Your task to perform on an android device: toggle sleep mode Image 0: 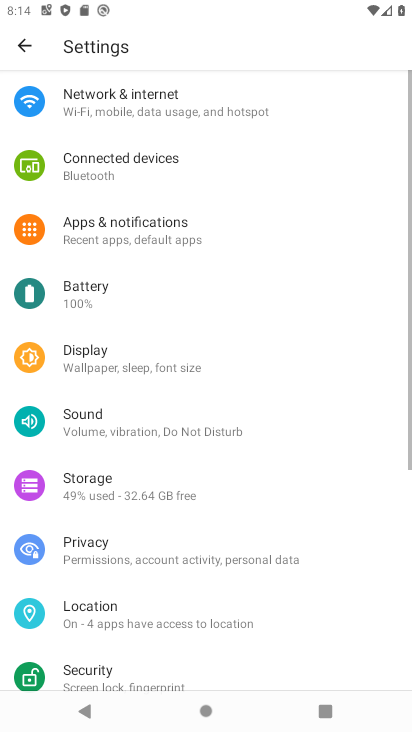
Step 0: press home button
Your task to perform on an android device: toggle sleep mode Image 1: 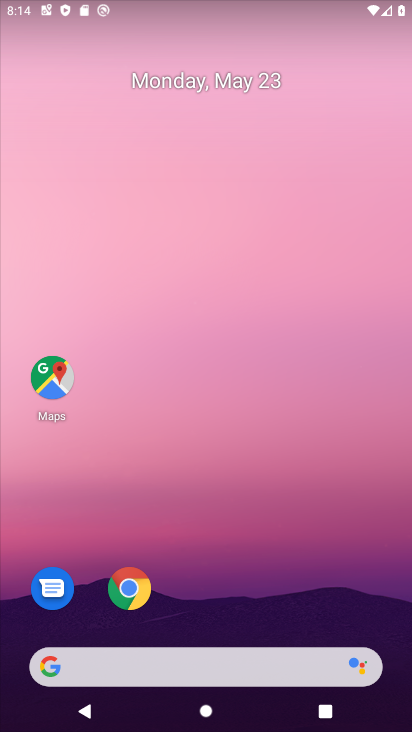
Step 1: drag from (396, 702) to (400, 306)
Your task to perform on an android device: toggle sleep mode Image 2: 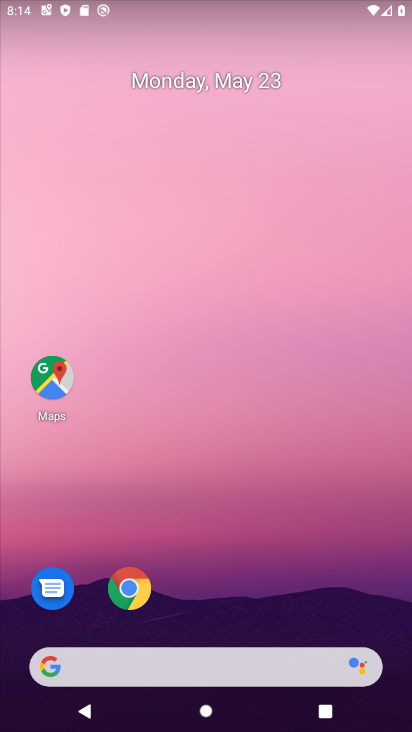
Step 2: drag from (398, 715) to (377, 76)
Your task to perform on an android device: toggle sleep mode Image 3: 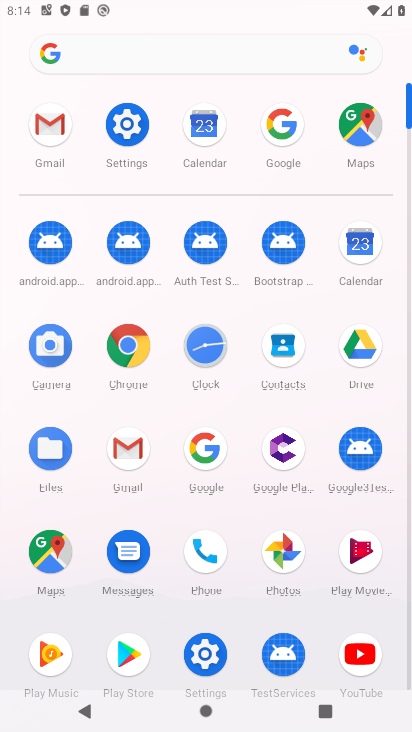
Step 3: click (112, 122)
Your task to perform on an android device: toggle sleep mode Image 4: 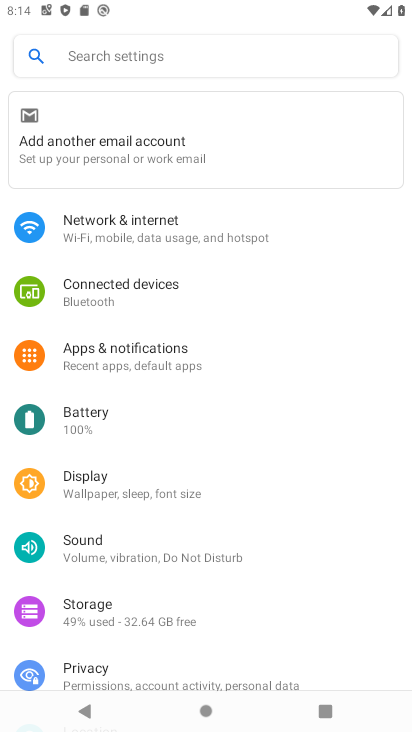
Step 4: click (77, 488)
Your task to perform on an android device: toggle sleep mode Image 5: 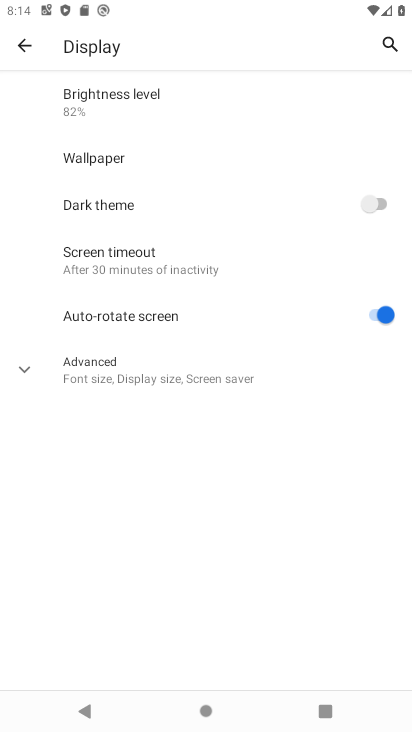
Step 5: click (121, 261)
Your task to perform on an android device: toggle sleep mode Image 6: 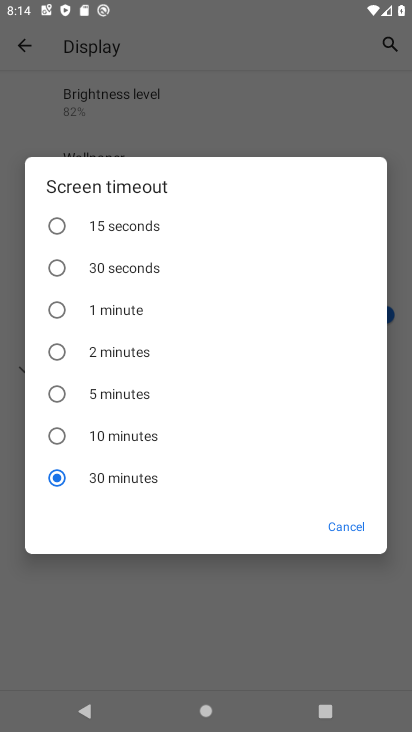
Step 6: click (55, 434)
Your task to perform on an android device: toggle sleep mode Image 7: 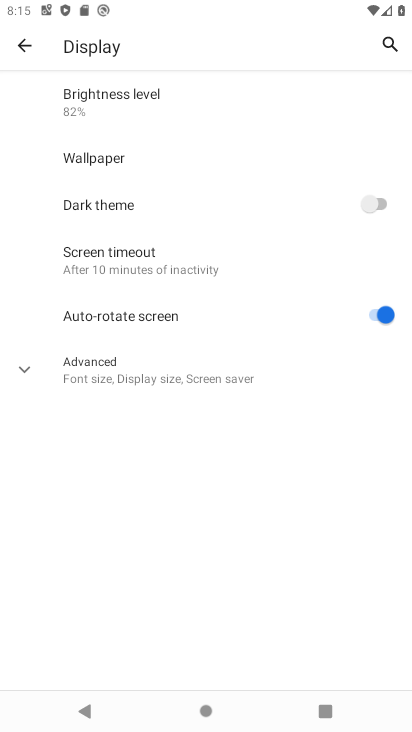
Step 7: task complete